Your task to perform on an android device: turn pop-ups off in chrome Image 0: 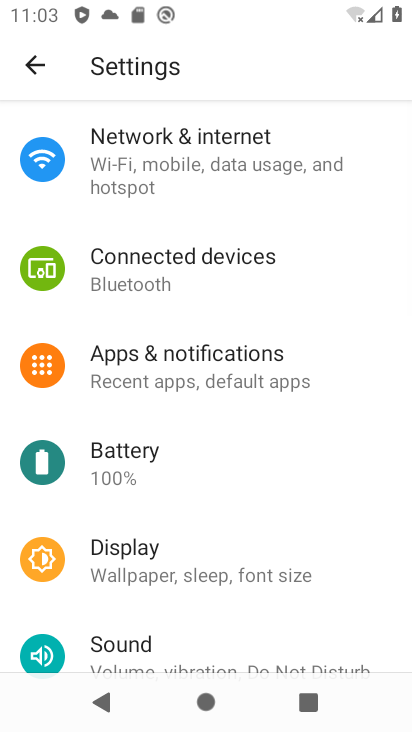
Step 0: press home button
Your task to perform on an android device: turn pop-ups off in chrome Image 1: 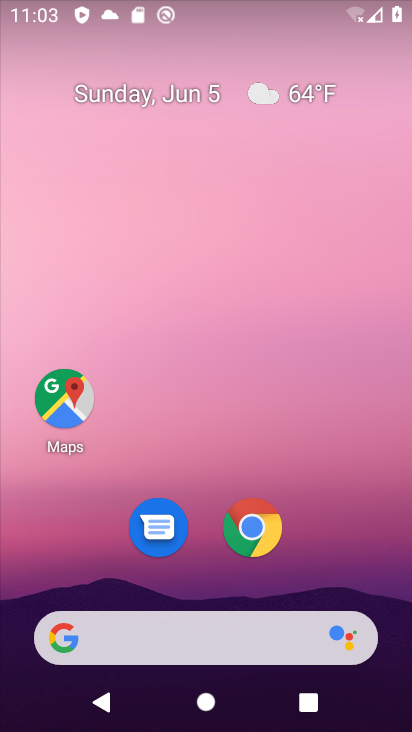
Step 1: click (264, 518)
Your task to perform on an android device: turn pop-ups off in chrome Image 2: 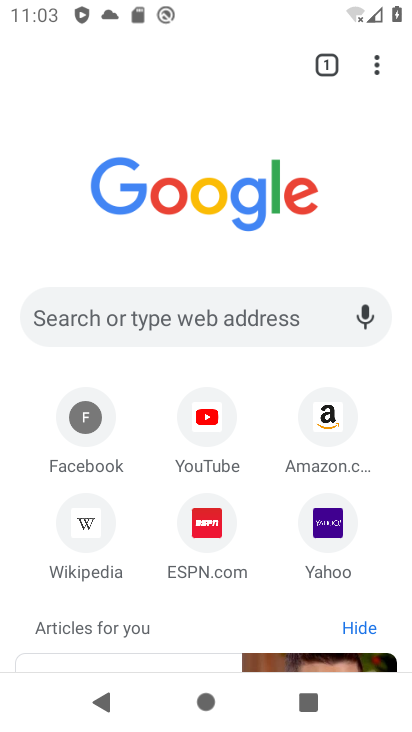
Step 2: click (370, 66)
Your task to perform on an android device: turn pop-ups off in chrome Image 3: 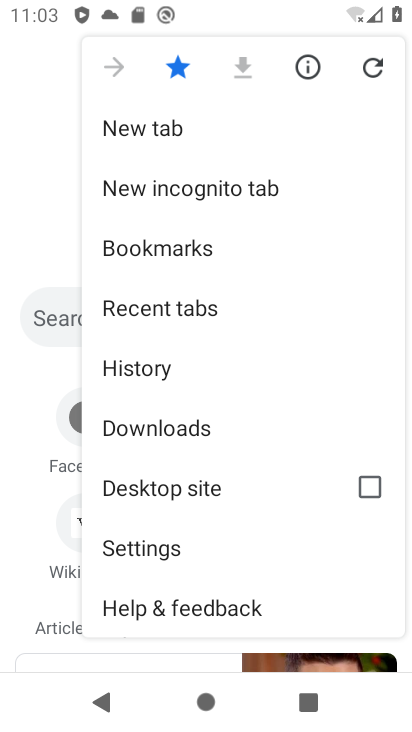
Step 3: click (176, 545)
Your task to perform on an android device: turn pop-ups off in chrome Image 4: 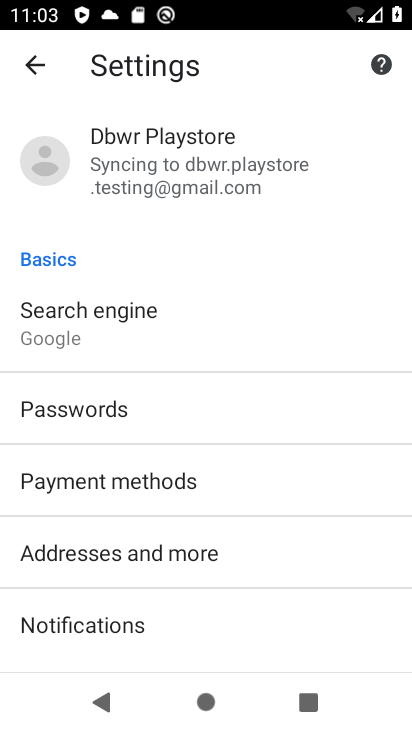
Step 4: drag from (278, 529) to (222, 680)
Your task to perform on an android device: turn pop-ups off in chrome Image 5: 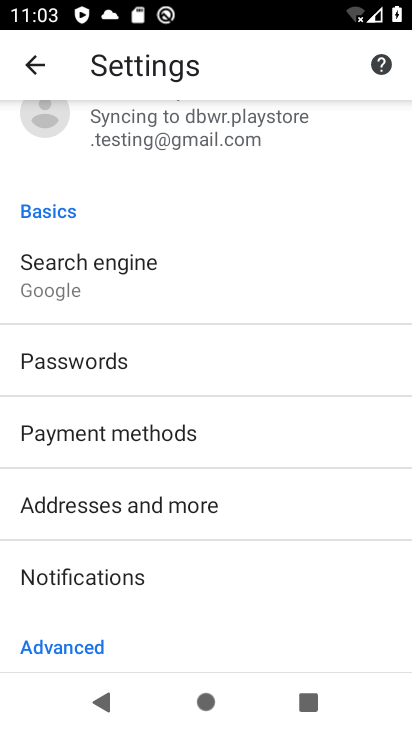
Step 5: drag from (338, 619) to (359, 326)
Your task to perform on an android device: turn pop-ups off in chrome Image 6: 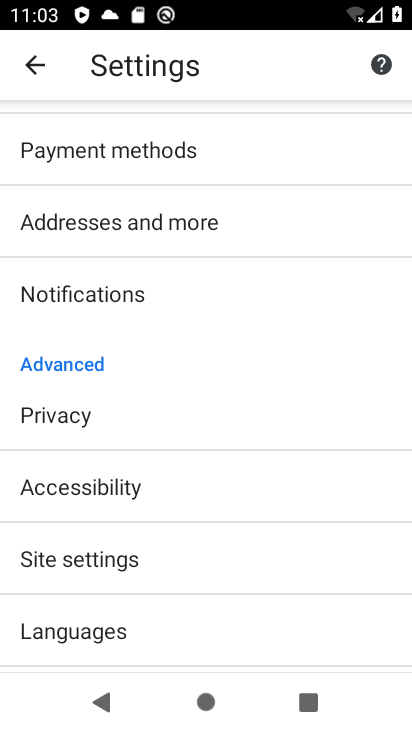
Step 6: click (117, 555)
Your task to perform on an android device: turn pop-ups off in chrome Image 7: 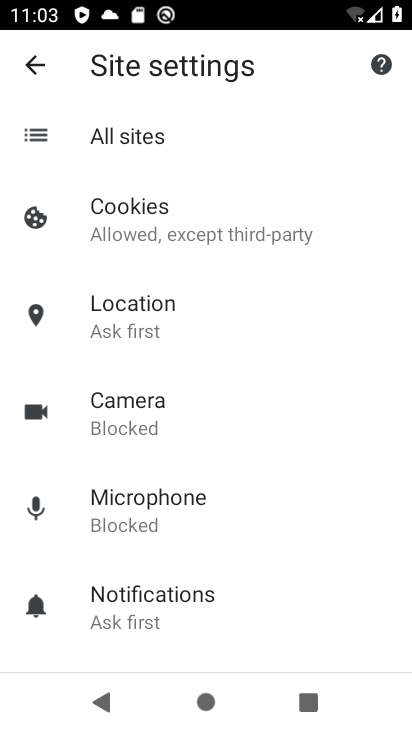
Step 7: drag from (388, 571) to (379, 222)
Your task to perform on an android device: turn pop-ups off in chrome Image 8: 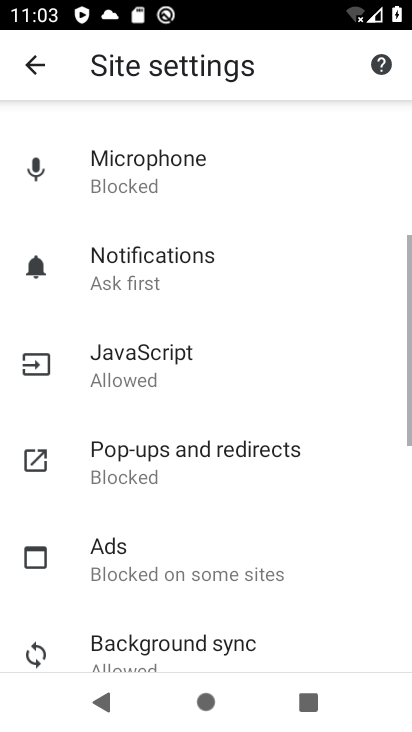
Step 8: click (151, 458)
Your task to perform on an android device: turn pop-ups off in chrome Image 9: 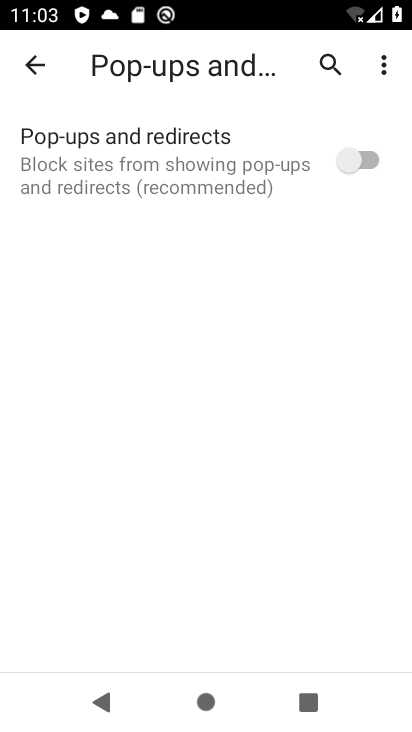
Step 9: task complete